Your task to perform on an android device: open sync settings in chrome Image 0: 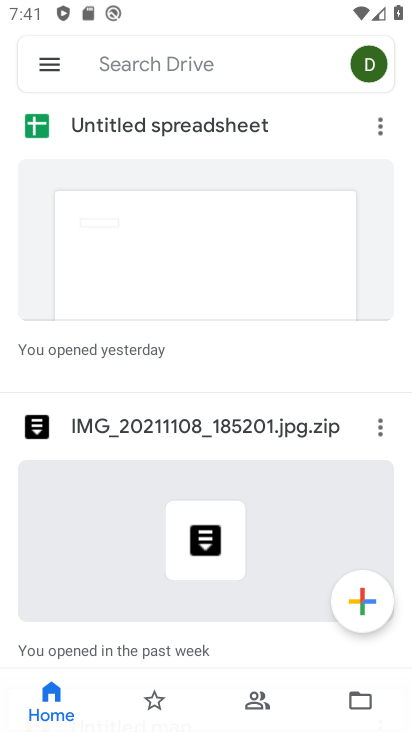
Step 0: press home button
Your task to perform on an android device: open sync settings in chrome Image 1: 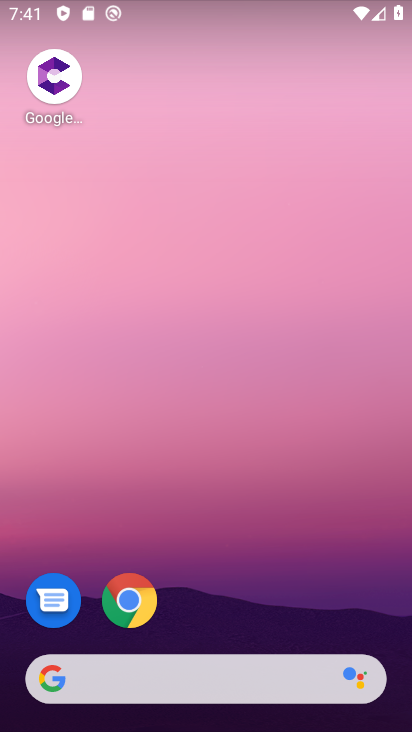
Step 1: drag from (251, 703) to (302, 167)
Your task to perform on an android device: open sync settings in chrome Image 2: 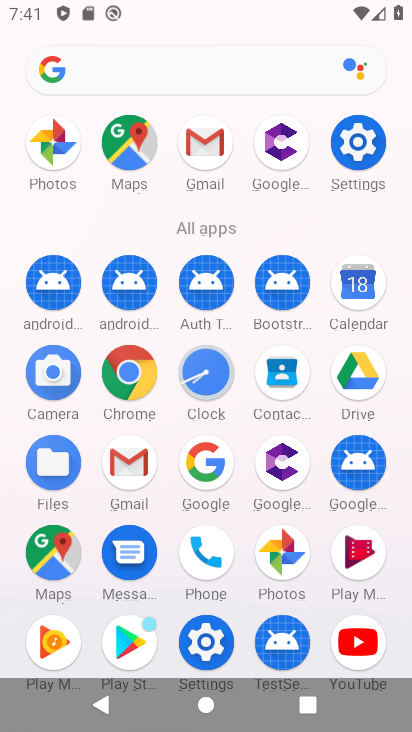
Step 2: click (130, 379)
Your task to perform on an android device: open sync settings in chrome Image 3: 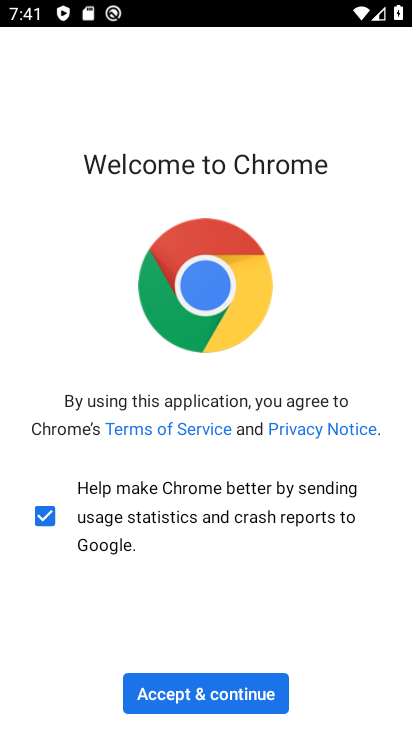
Step 3: click (185, 679)
Your task to perform on an android device: open sync settings in chrome Image 4: 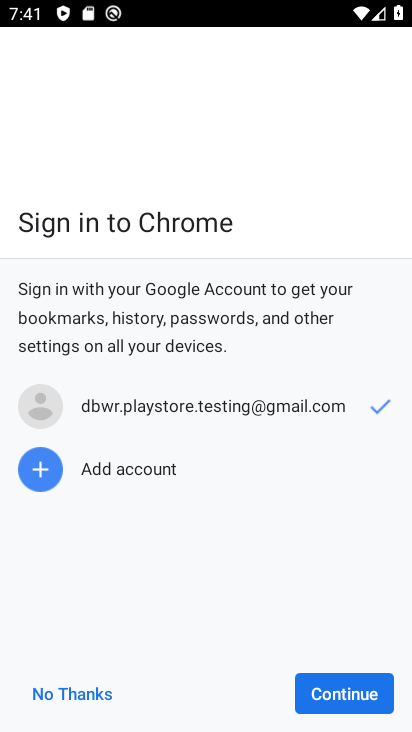
Step 4: click (332, 691)
Your task to perform on an android device: open sync settings in chrome Image 5: 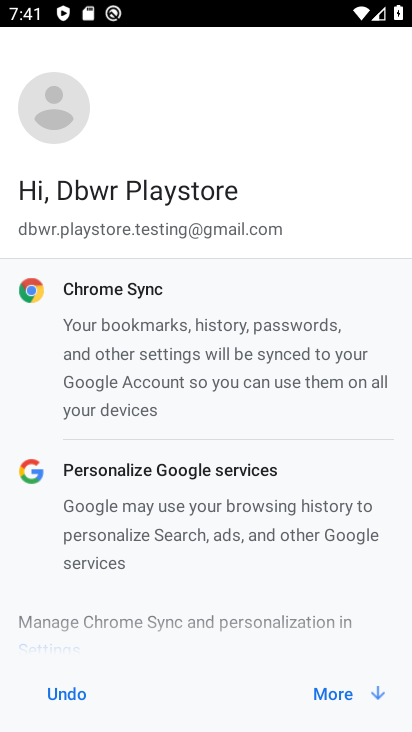
Step 5: click (377, 689)
Your task to perform on an android device: open sync settings in chrome Image 6: 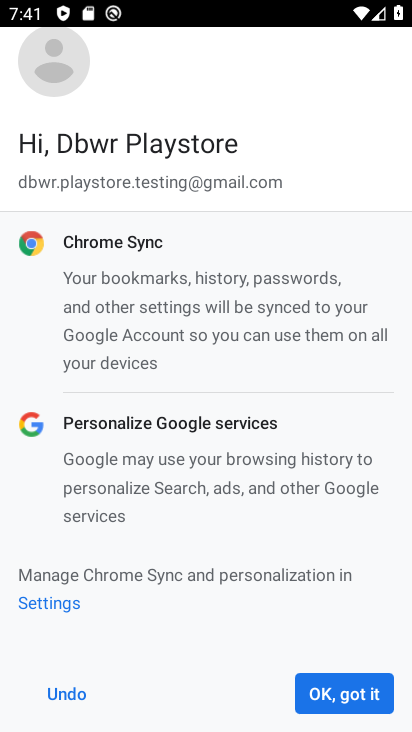
Step 6: click (363, 694)
Your task to perform on an android device: open sync settings in chrome Image 7: 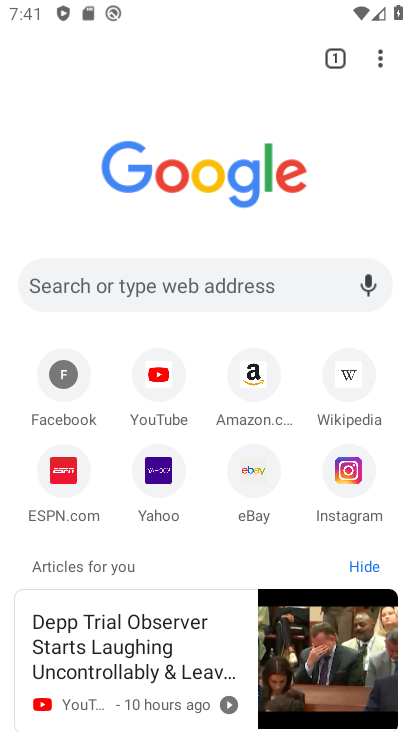
Step 7: click (377, 72)
Your task to perform on an android device: open sync settings in chrome Image 8: 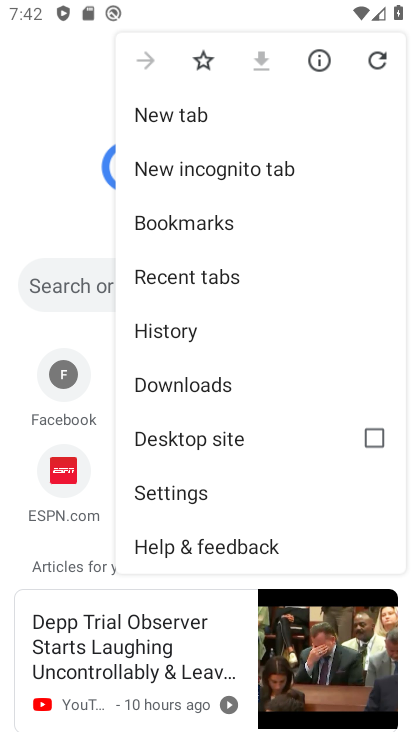
Step 8: click (205, 494)
Your task to perform on an android device: open sync settings in chrome Image 9: 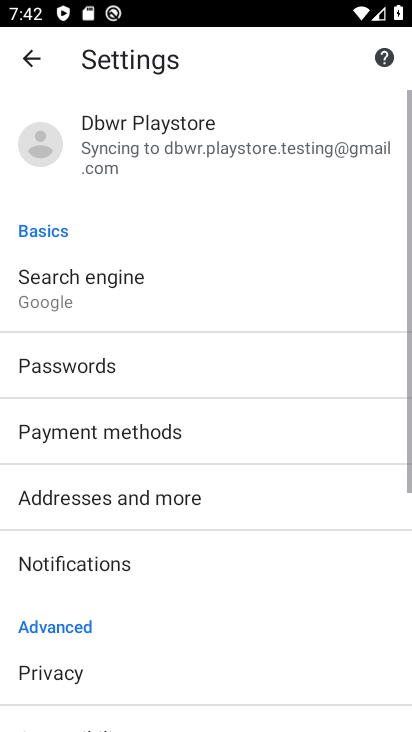
Step 9: drag from (167, 591) to (218, 240)
Your task to perform on an android device: open sync settings in chrome Image 10: 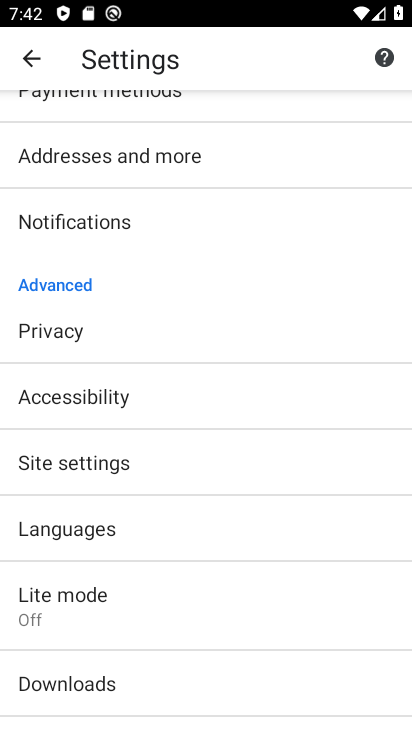
Step 10: drag from (130, 602) to (195, 432)
Your task to perform on an android device: open sync settings in chrome Image 11: 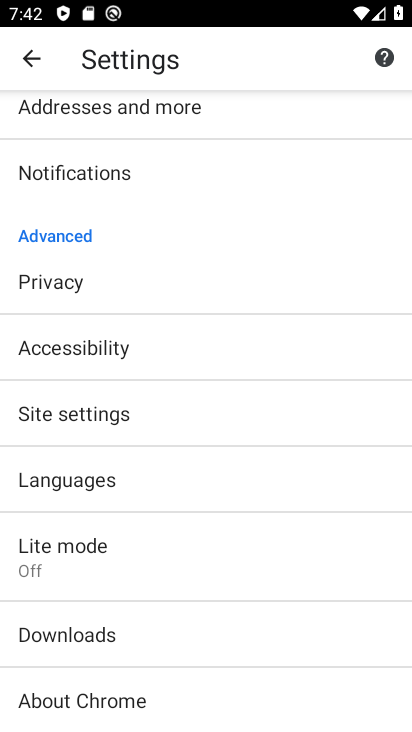
Step 11: click (111, 402)
Your task to perform on an android device: open sync settings in chrome Image 12: 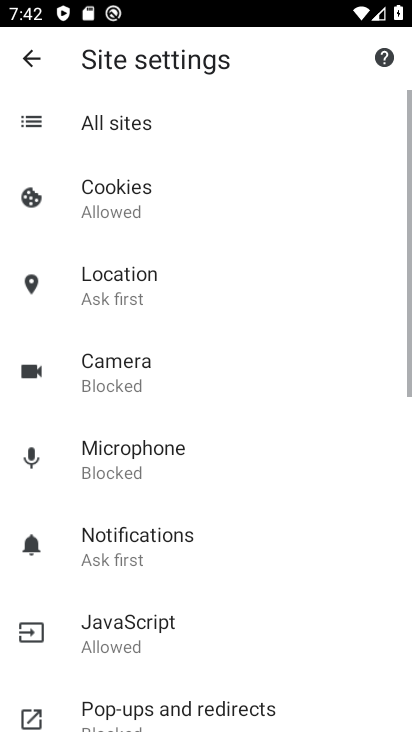
Step 12: drag from (199, 565) to (268, 287)
Your task to perform on an android device: open sync settings in chrome Image 13: 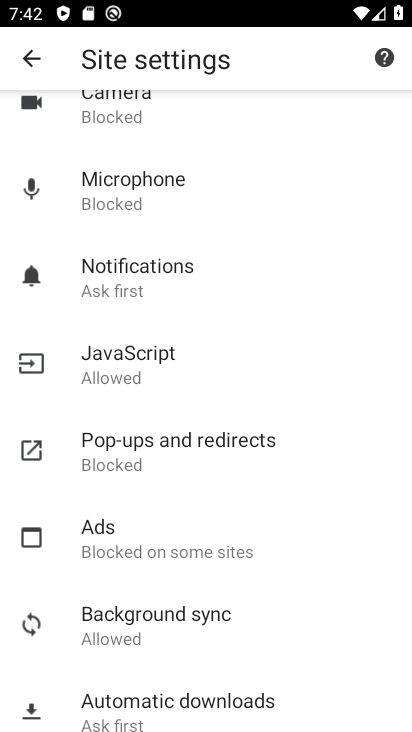
Step 13: click (152, 608)
Your task to perform on an android device: open sync settings in chrome Image 14: 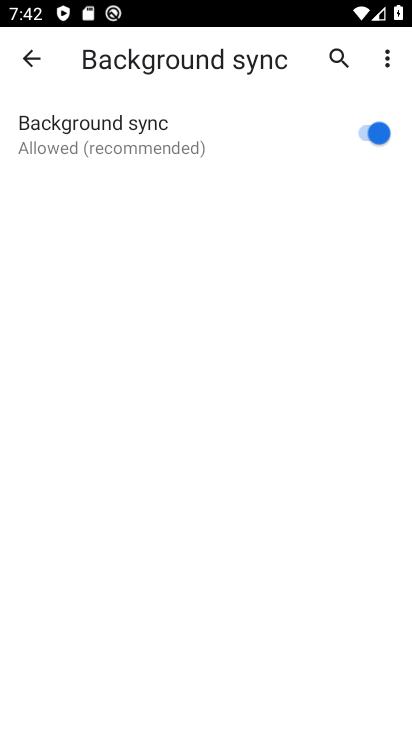
Step 14: task complete